Your task to perform on an android device: turn on showing notifications on the lock screen Image 0: 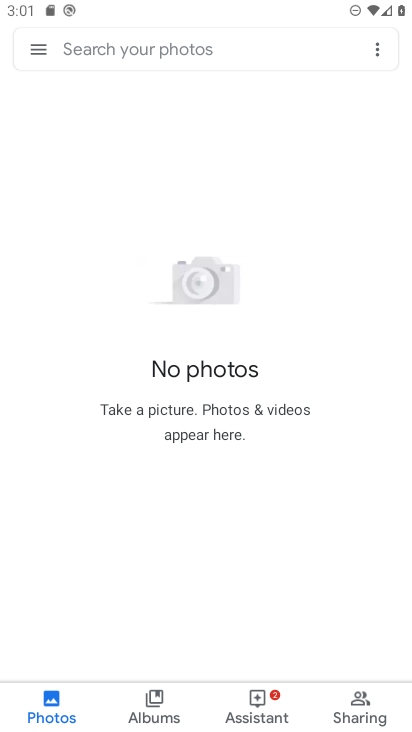
Step 0: press home button
Your task to perform on an android device: turn on showing notifications on the lock screen Image 1: 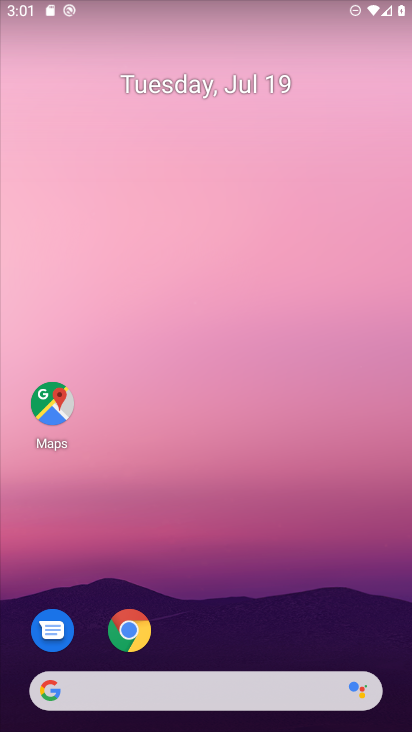
Step 1: drag from (378, 619) to (342, 131)
Your task to perform on an android device: turn on showing notifications on the lock screen Image 2: 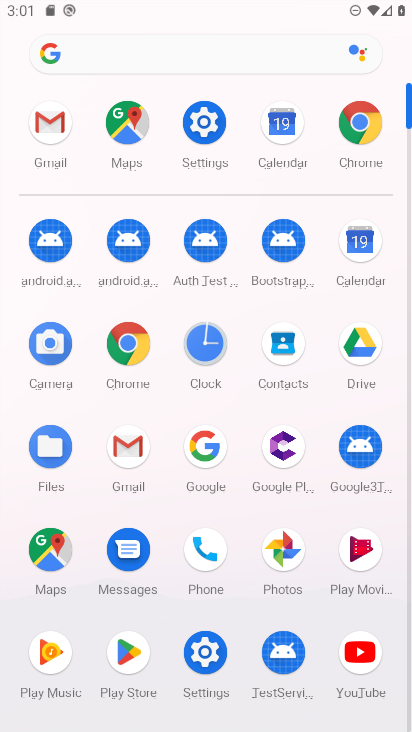
Step 2: click (204, 654)
Your task to perform on an android device: turn on showing notifications on the lock screen Image 3: 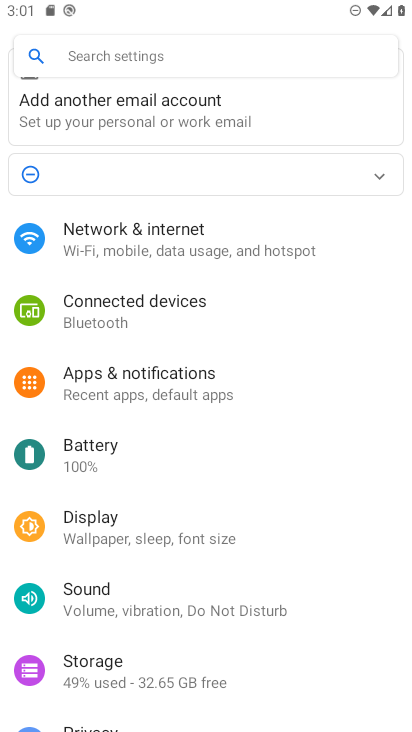
Step 3: click (115, 383)
Your task to perform on an android device: turn on showing notifications on the lock screen Image 4: 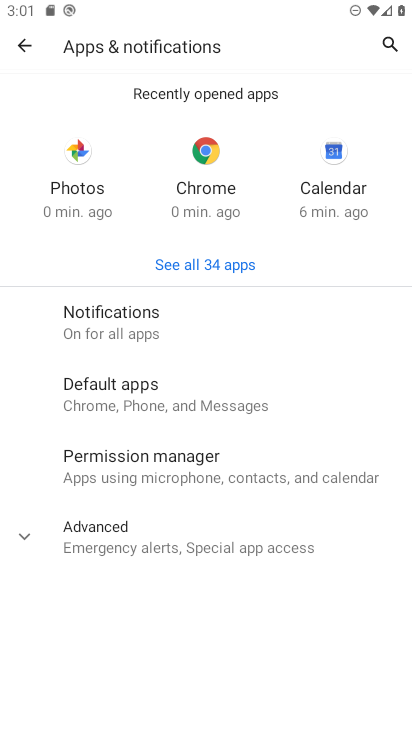
Step 4: click (115, 321)
Your task to perform on an android device: turn on showing notifications on the lock screen Image 5: 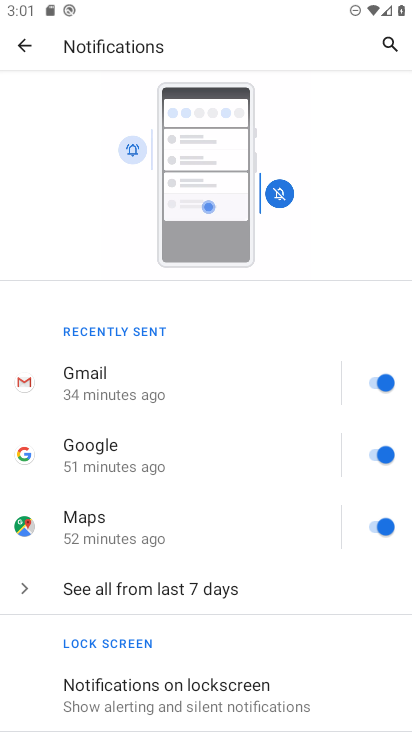
Step 5: drag from (189, 623) to (215, 161)
Your task to perform on an android device: turn on showing notifications on the lock screen Image 6: 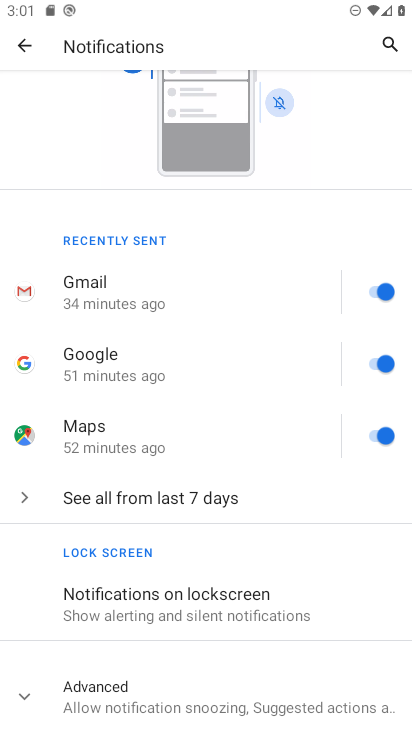
Step 6: click (140, 602)
Your task to perform on an android device: turn on showing notifications on the lock screen Image 7: 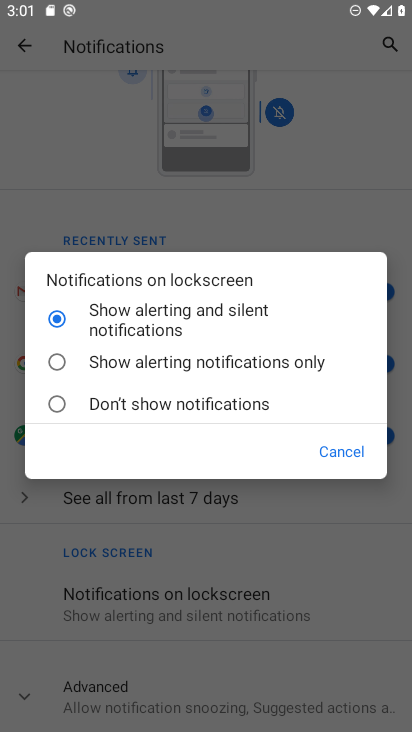
Step 7: task complete